Your task to perform on an android device: Open internet settings Image 0: 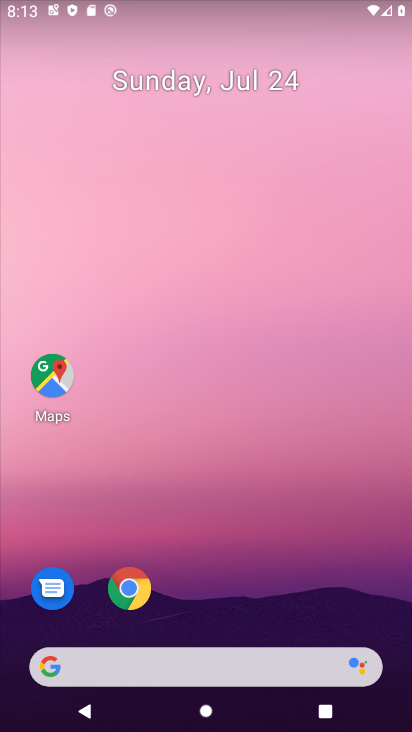
Step 0: drag from (249, 619) to (290, 25)
Your task to perform on an android device: Open internet settings Image 1: 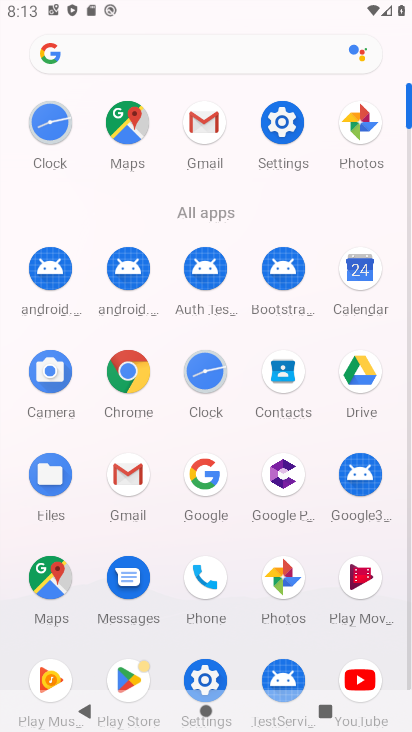
Step 1: click (276, 112)
Your task to perform on an android device: Open internet settings Image 2: 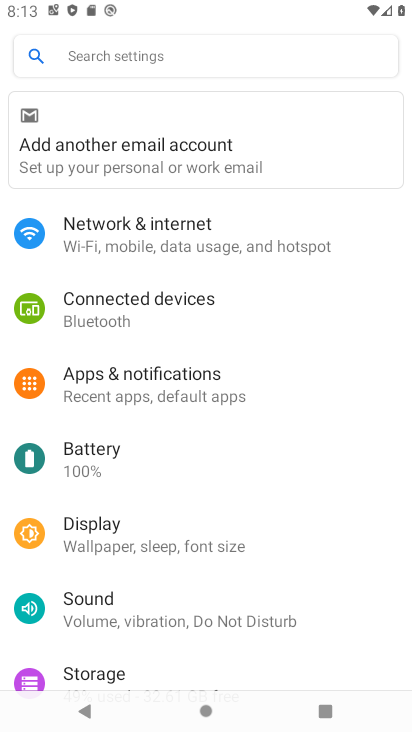
Step 2: click (188, 230)
Your task to perform on an android device: Open internet settings Image 3: 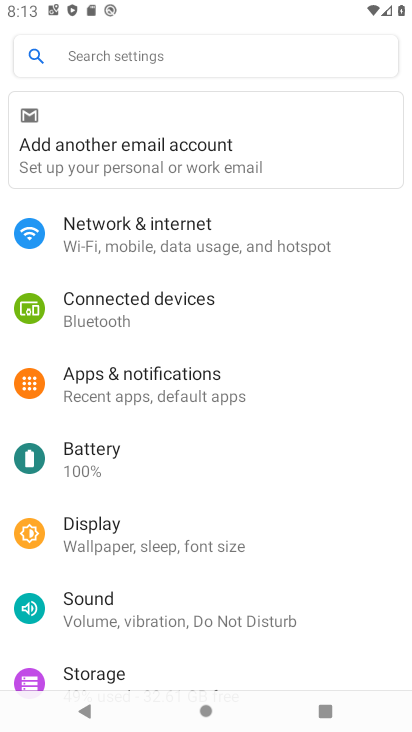
Step 3: click (188, 230)
Your task to perform on an android device: Open internet settings Image 4: 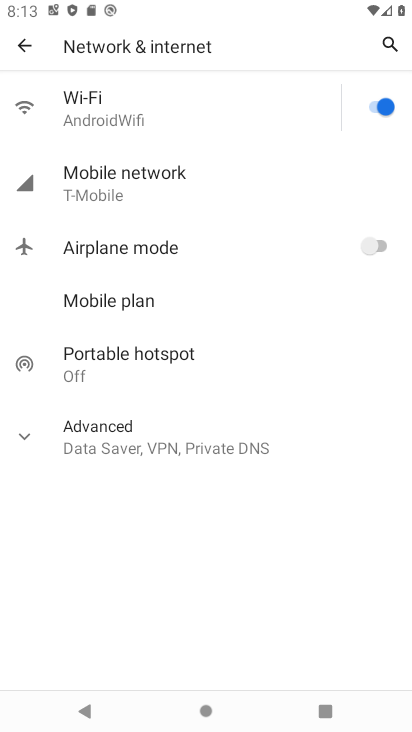
Step 4: task complete